Your task to perform on an android device: Open Yahoo.com Image 0: 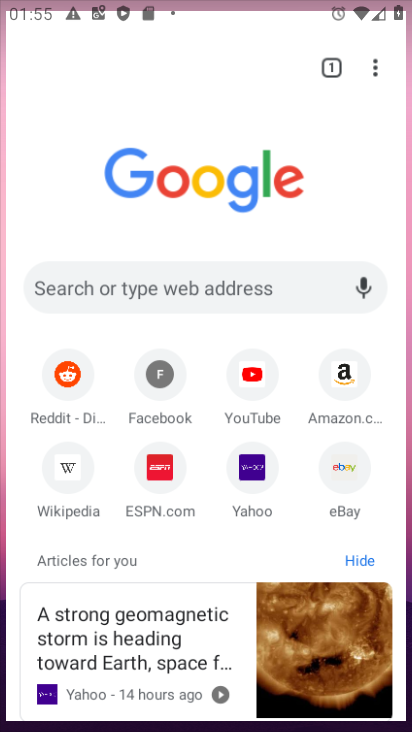
Step 0: press home button
Your task to perform on an android device: Open Yahoo.com Image 1: 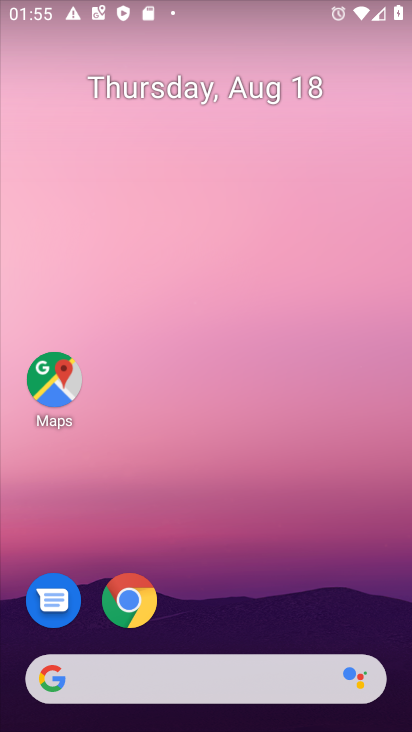
Step 1: click (100, 683)
Your task to perform on an android device: Open Yahoo.com Image 2: 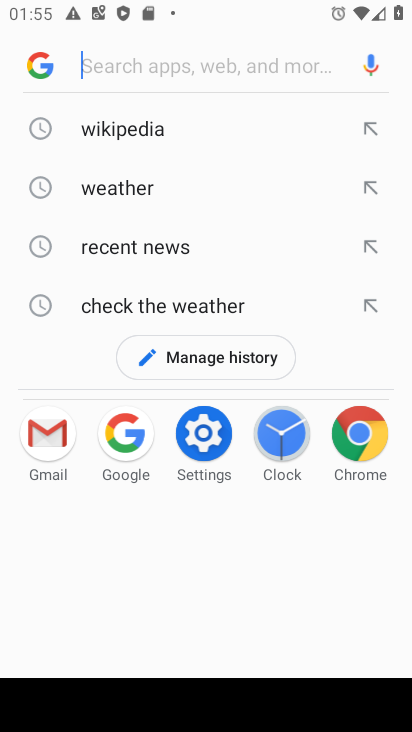
Step 2: type "Yahoo.com"
Your task to perform on an android device: Open Yahoo.com Image 3: 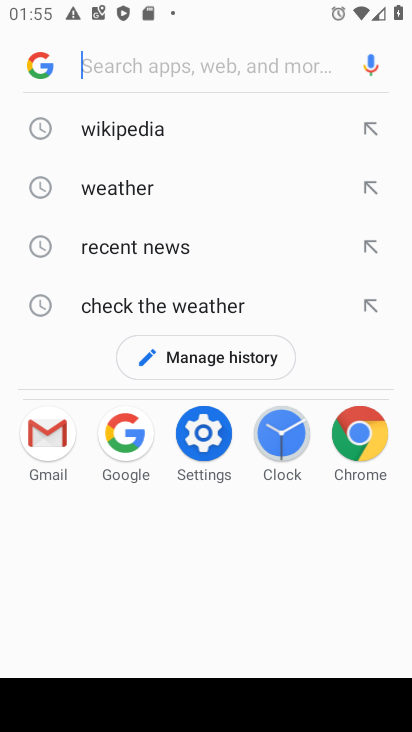
Step 3: click (158, 58)
Your task to perform on an android device: Open Yahoo.com Image 4: 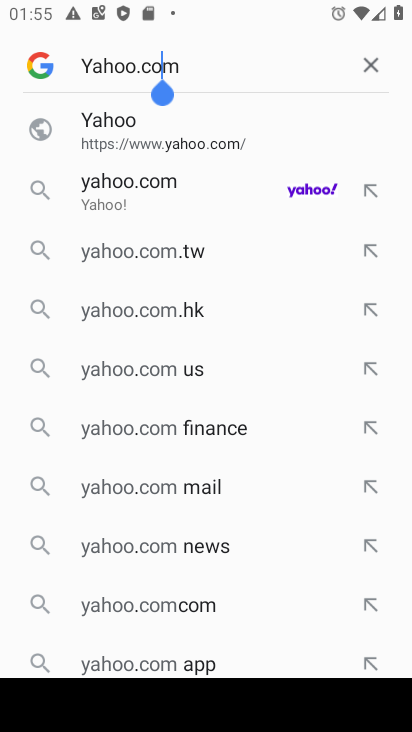
Step 4: click (130, 127)
Your task to perform on an android device: Open Yahoo.com Image 5: 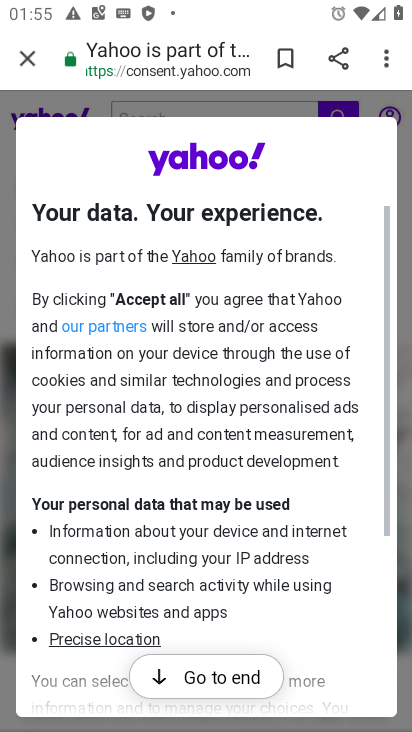
Step 5: click (221, 678)
Your task to perform on an android device: Open Yahoo.com Image 6: 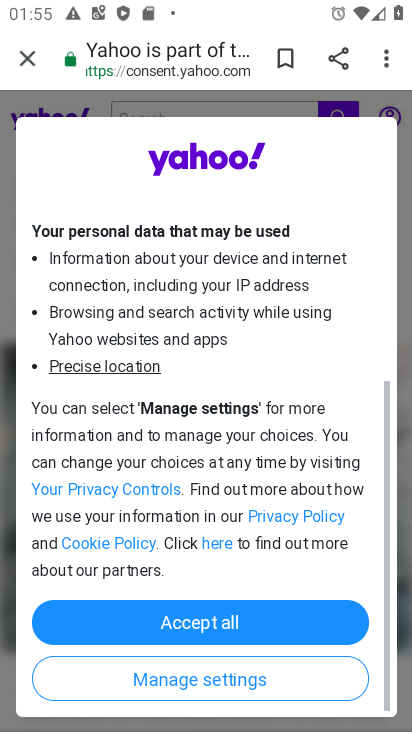
Step 6: click (224, 623)
Your task to perform on an android device: Open Yahoo.com Image 7: 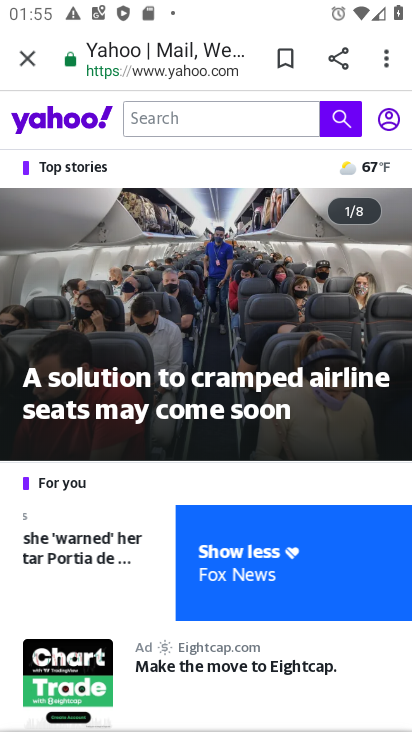
Step 7: task complete